Your task to perform on an android device: Go to location settings Image 0: 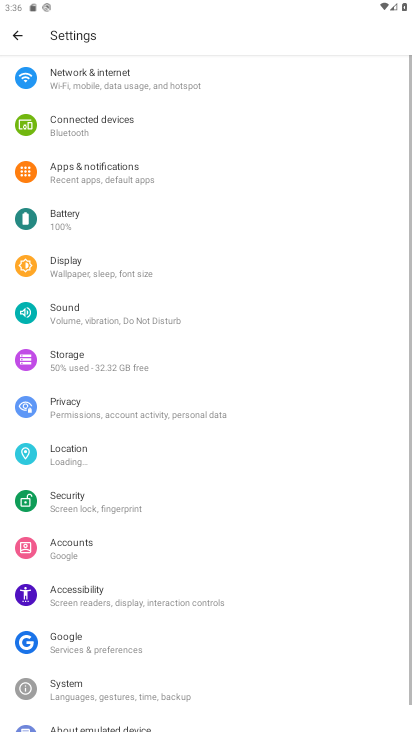
Step 0: press home button
Your task to perform on an android device: Go to location settings Image 1: 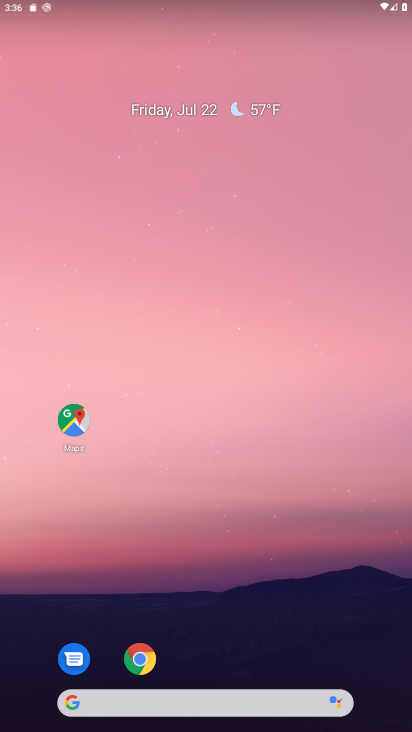
Step 1: drag from (189, 10) to (224, 3)
Your task to perform on an android device: Go to location settings Image 2: 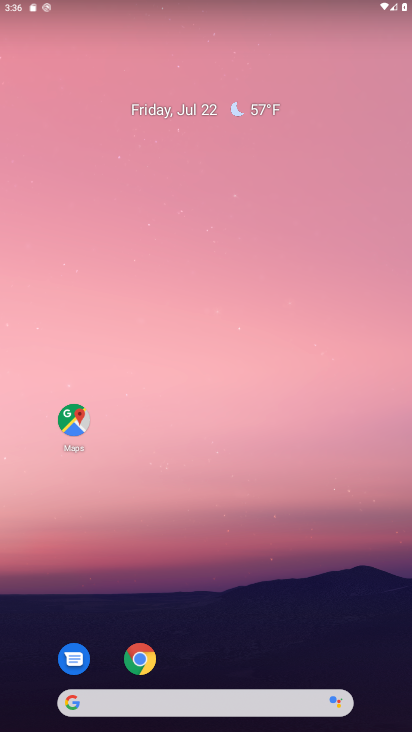
Step 2: drag from (264, 639) to (195, 5)
Your task to perform on an android device: Go to location settings Image 3: 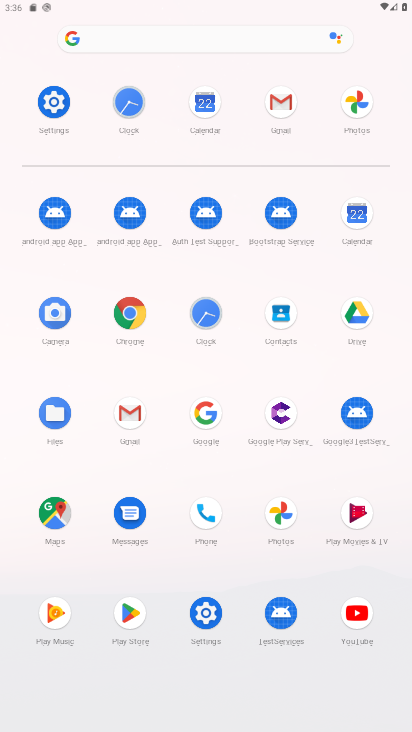
Step 3: click (52, 113)
Your task to perform on an android device: Go to location settings Image 4: 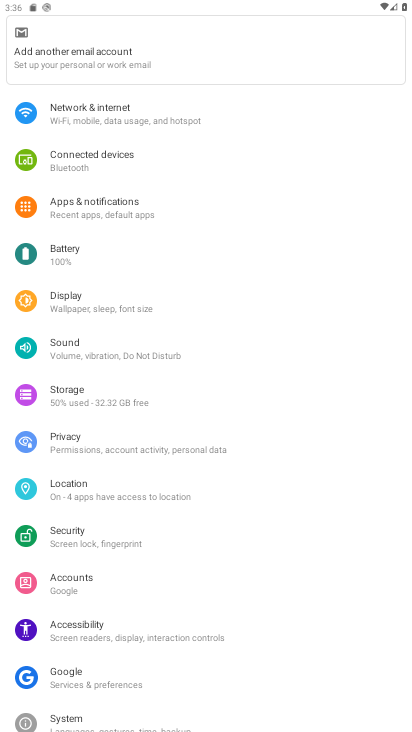
Step 4: click (89, 487)
Your task to perform on an android device: Go to location settings Image 5: 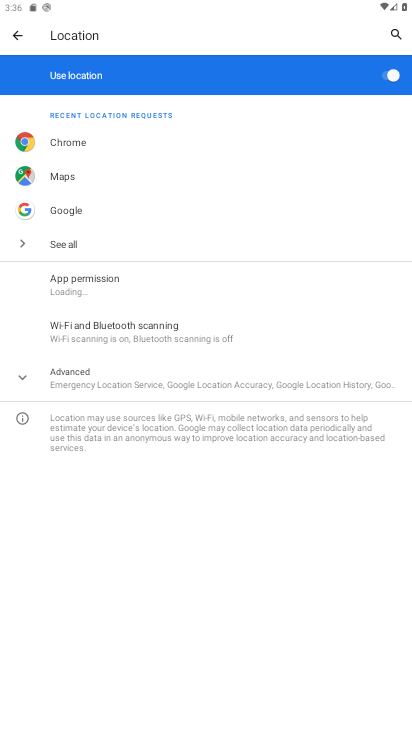
Step 5: task complete